Your task to perform on an android device: check battery use Image 0: 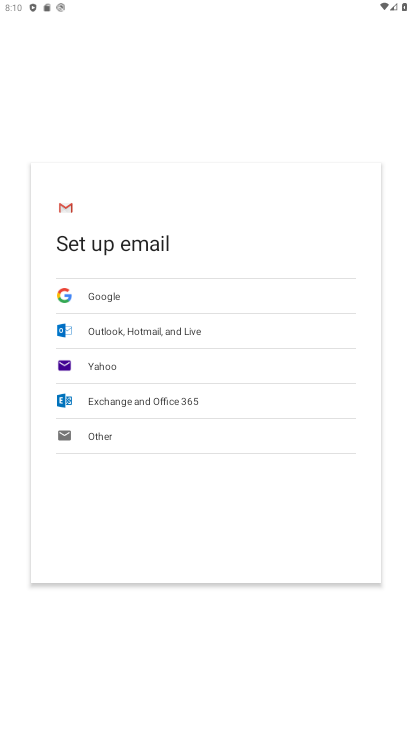
Step 0: press home button
Your task to perform on an android device: check battery use Image 1: 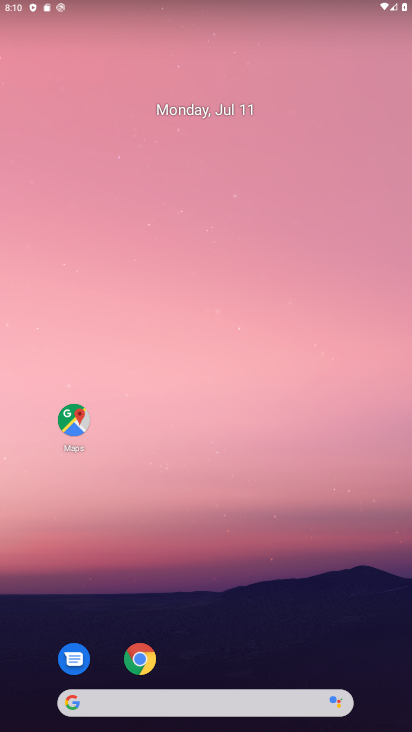
Step 1: drag from (258, 635) to (263, 176)
Your task to perform on an android device: check battery use Image 2: 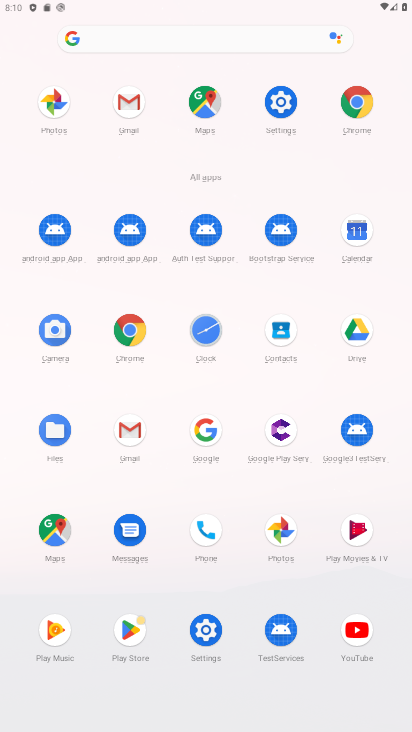
Step 2: click (294, 121)
Your task to perform on an android device: check battery use Image 3: 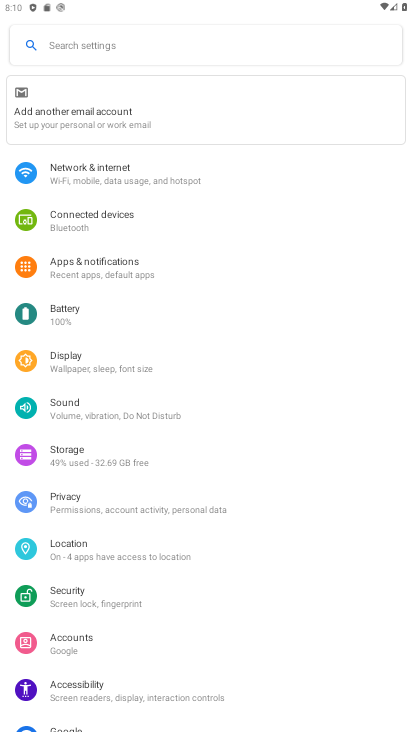
Step 3: click (140, 319)
Your task to perform on an android device: check battery use Image 4: 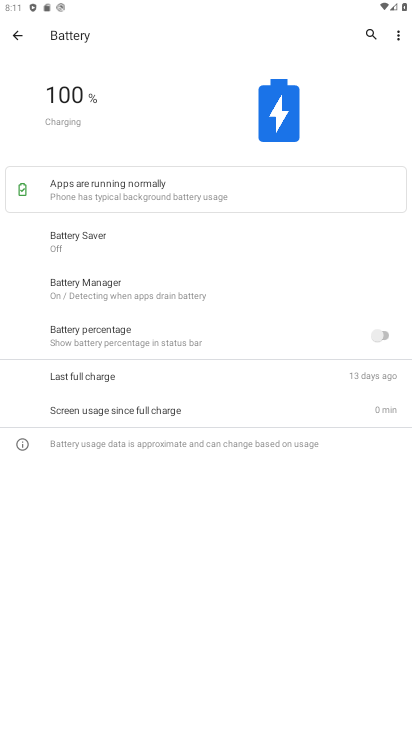
Step 4: click (398, 31)
Your task to perform on an android device: check battery use Image 5: 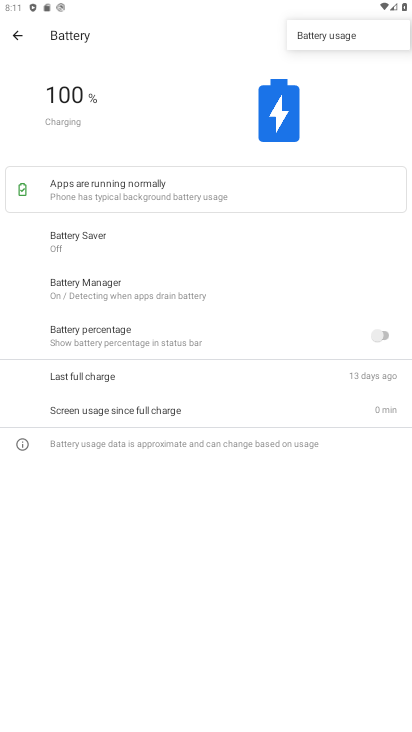
Step 5: click (327, 32)
Your task to perform on an android device: check battery use Image 6: 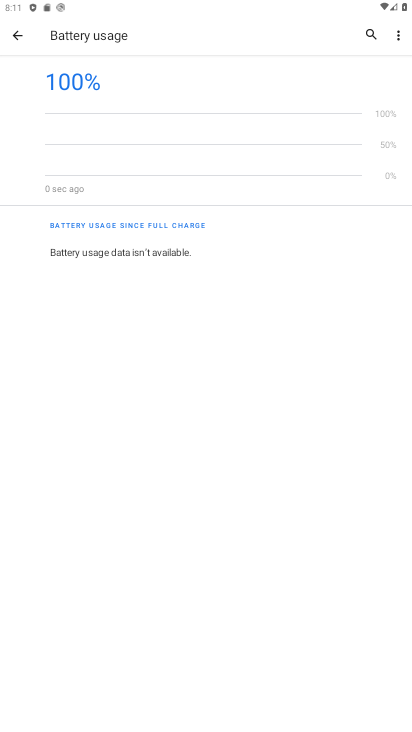
Step 6: task complete